Your task to perform on an android device: find which apps use the phone's location Image 0: 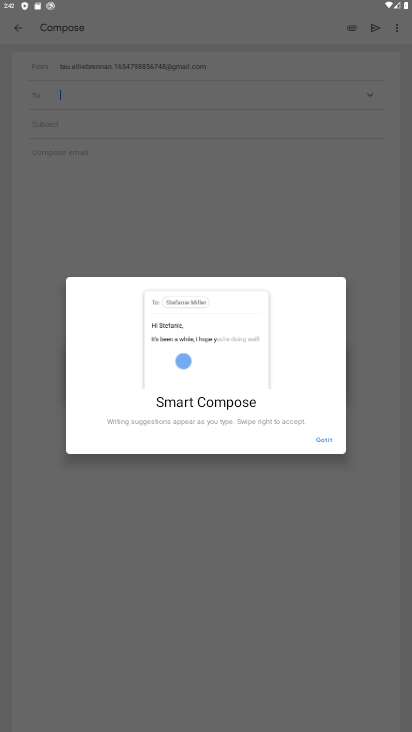
Step 0: press home button
Your task to perform on an android device: find which apps use the phone's location Image 1: 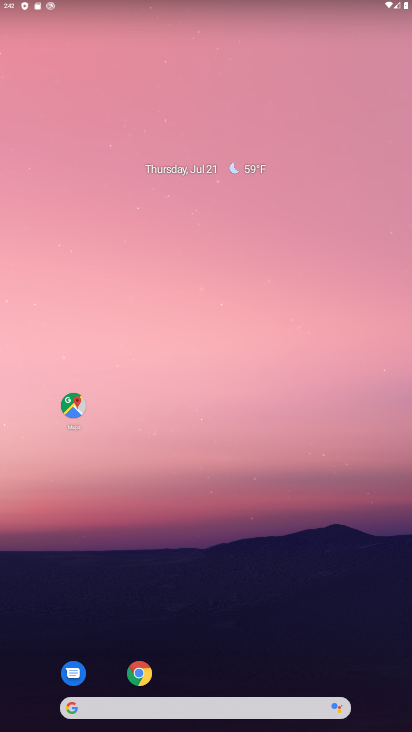
Step 1: drag from (385, 685) to (323, 110)
Your task to perform on an android device: find which apps use the phone's location Image 2: 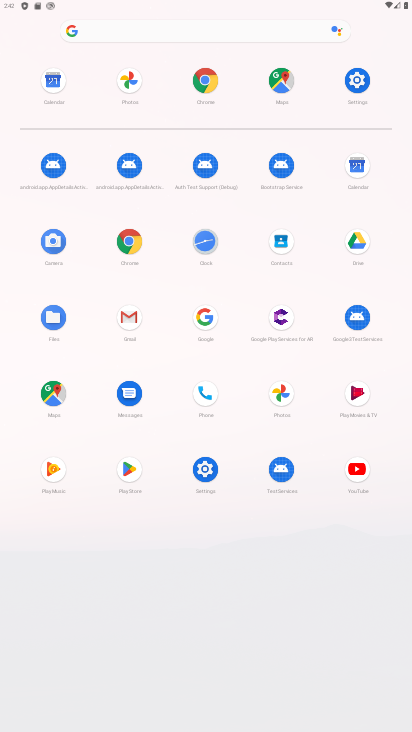
Step 2: click (205, 472)
Your task to perform on an android device: find which apps use the phone's location Image 3: 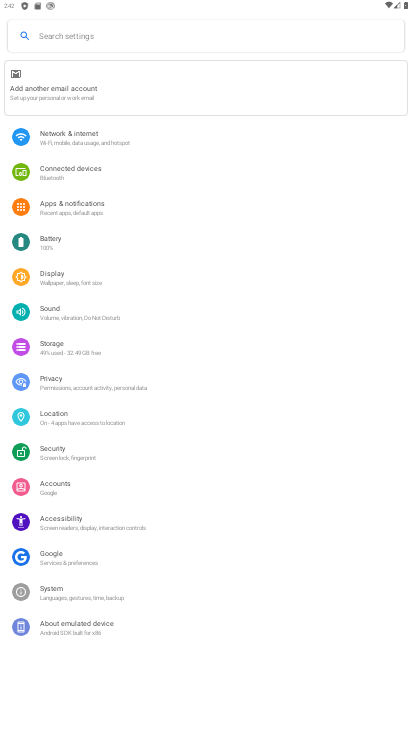
Step 3: click (48, 413)
Your task to perform on an android device: find which apps use the phone's location Image 4: 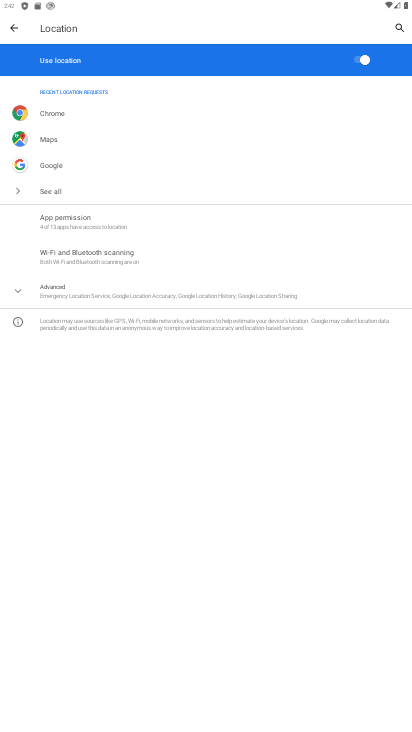
Step 4: click (69, 218)
Your task to perform on an android device: find which apps use the phone's location Image 5: 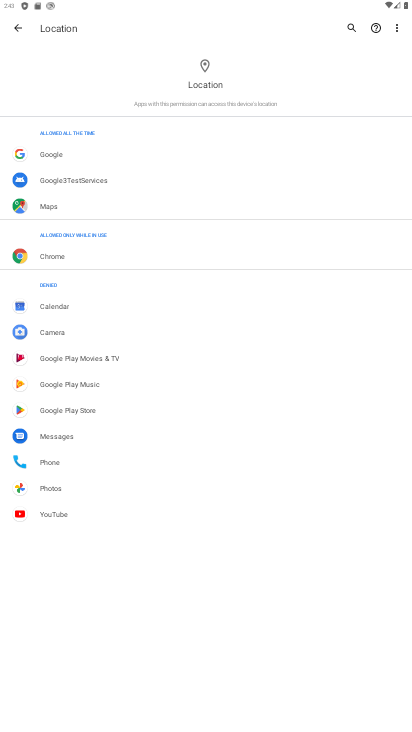
Step 5: click (34, 483)
Your task to perform on an android device: find which apps use the phone's location Image 6: 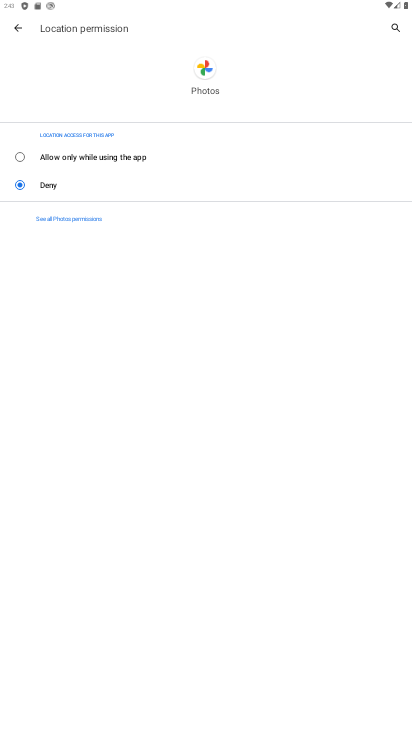
Step 6: task complete